Your task to perform on an android device: Open calendar and show me the second week of next month Image 0: 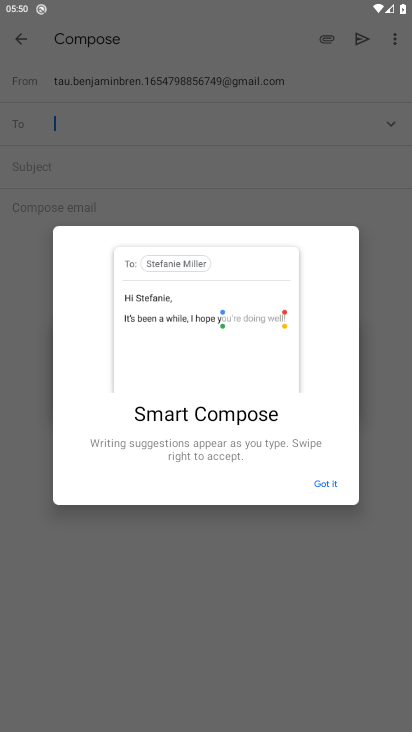
Step 0: press home button
Your task to perform on an android device: Open calendar and show me the second week of next month Image 1: 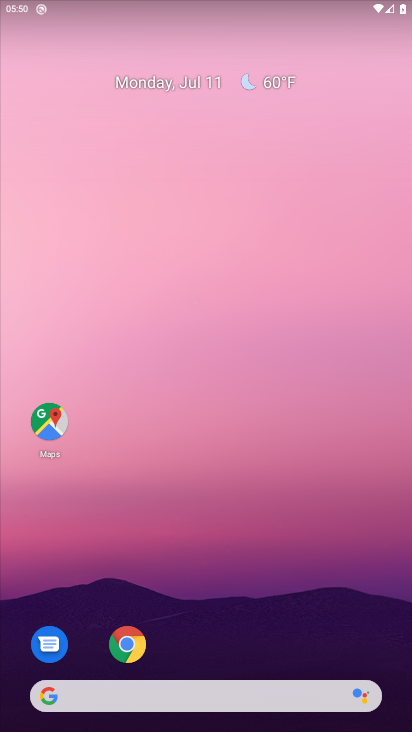
Step 1: drag from (239, 667) to (194, 232)
Your task to perform on an android device: Open calendar and show me the second week of next month Image 2: 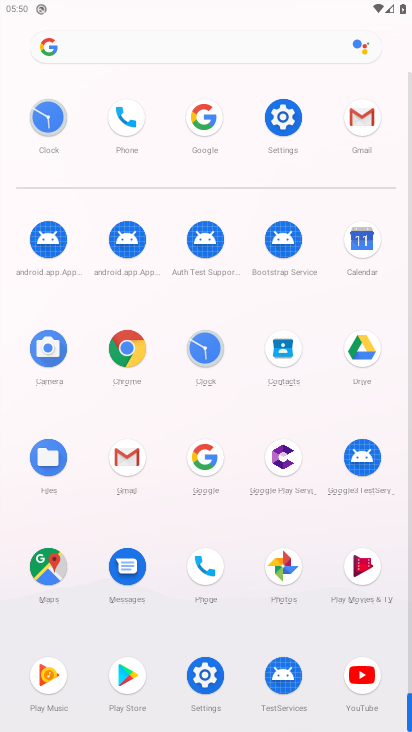
Step 2: click (369, 234)
Your task to perform on an android device: Open calendar and show me the second week of next month Image 3: 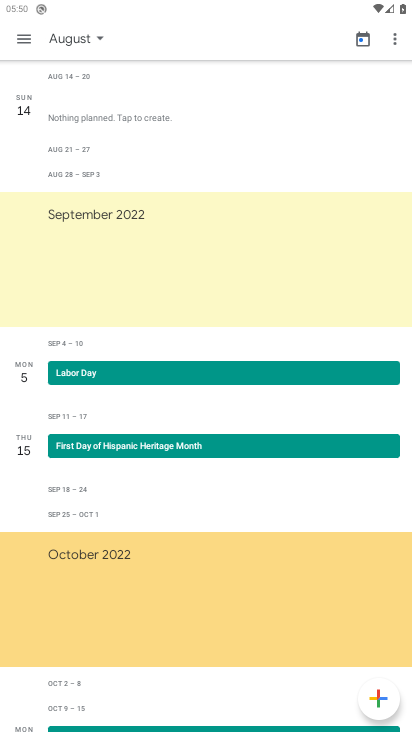
Step 3: click (56, 34)
Your task to perform on an android device: Open calendar and show me the second week of next month Image 4: 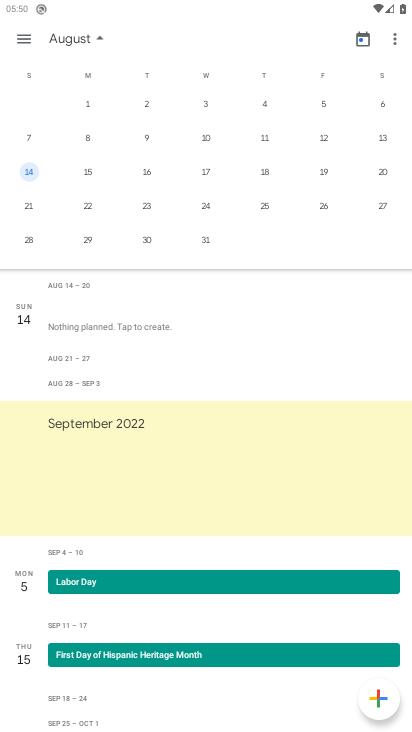
Step 4: click (34, 137)
Your task to perform on an android device: Open calendar and show me the second week of next month Image 5: 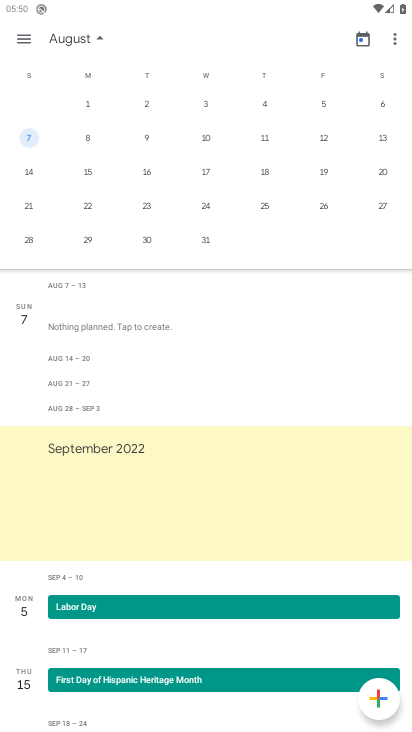
Step 5: task complete